Your task to perform on an android device: Open Google Chrome Image 0: 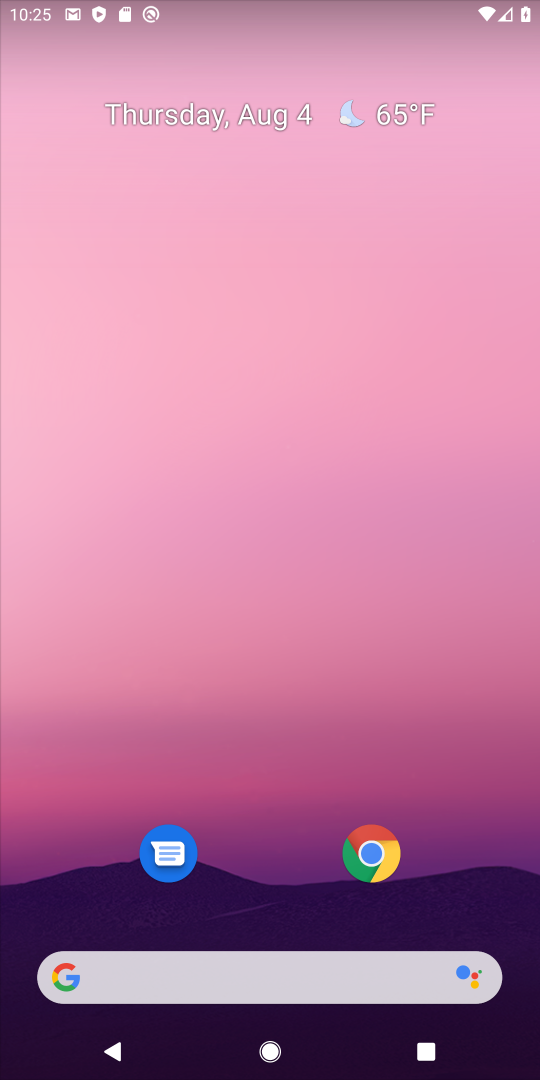
Step 0: click (385, 836)
Your task to perform on an android device: Open Google Chrome Image 1: 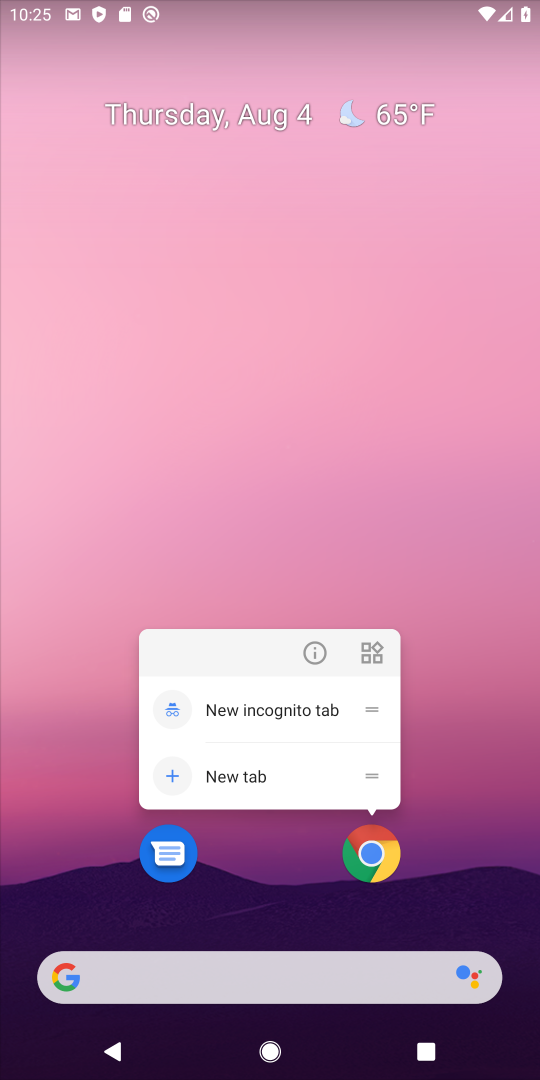
Step 1: click (375, 862)
Your task to perform on an android device: Open Google Chrome Image 2: 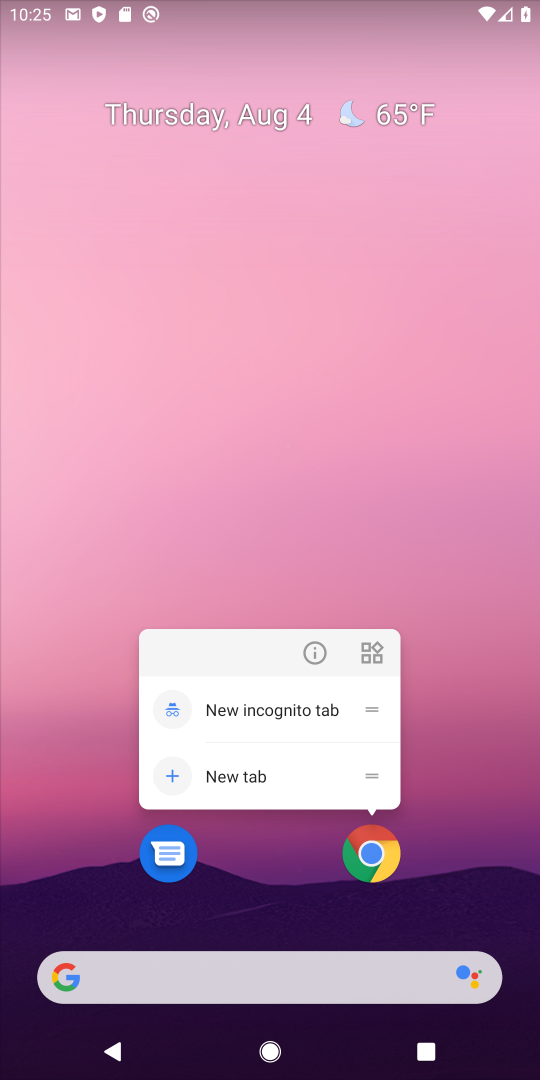
Step 2: click (375, 862)
Your task to perform on an android device: Open Google Chrome Image 3: 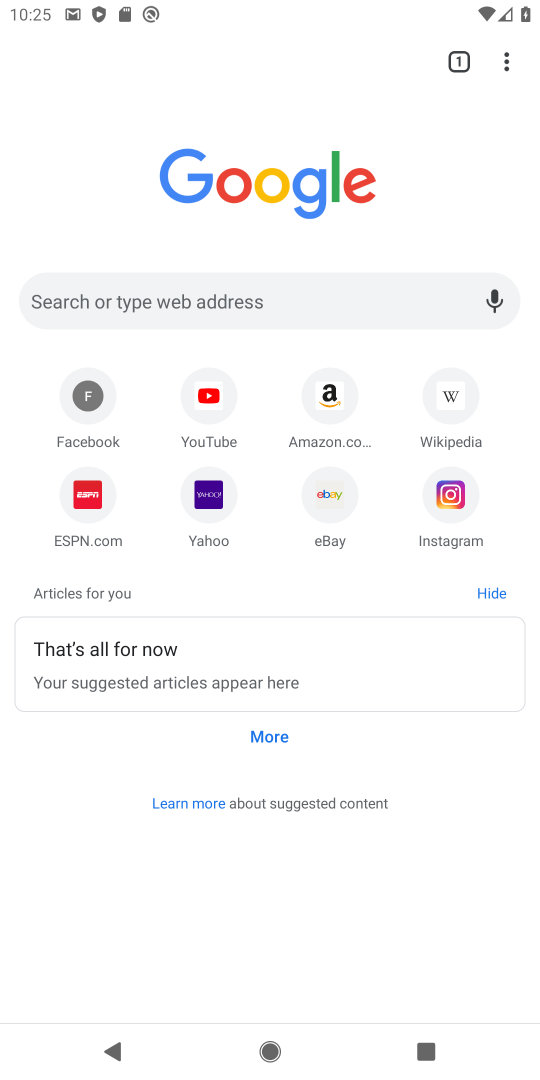
Step 3: task complete